Your task to perform on an android device: What is the recent news? Image 0: 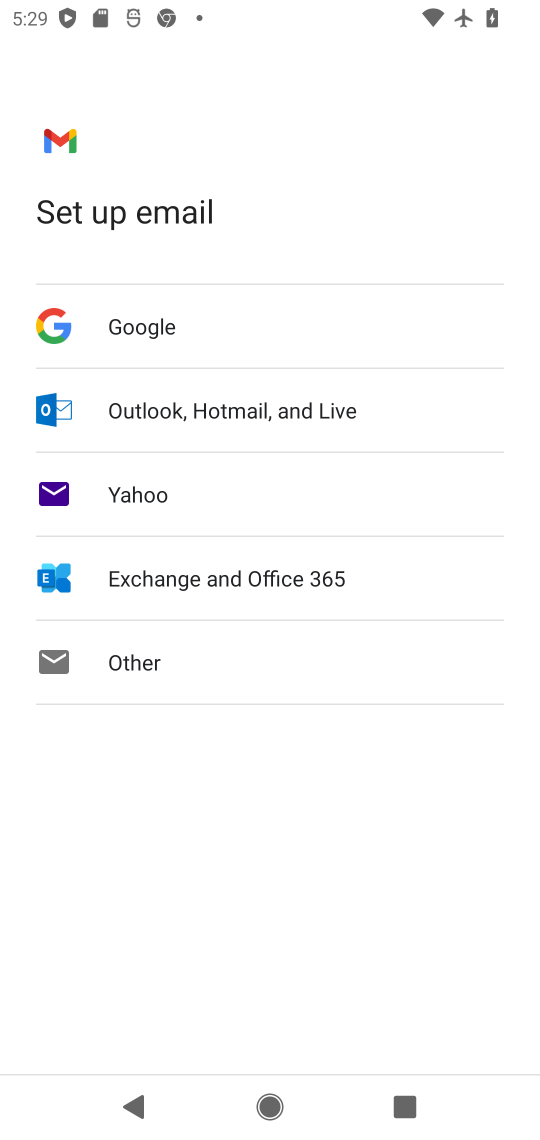
Step 0: press home button
Your task to perform on an android device: What is the recent news? Image 1: 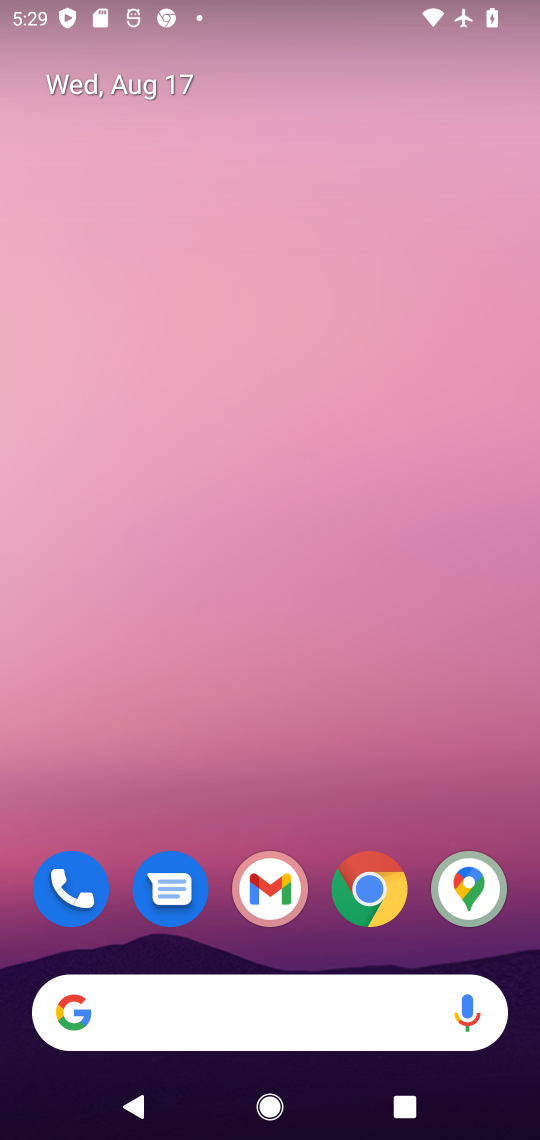
Step 1: click (79, 1014)
Your task to perform on an android device: What is the recent news? Image 2: 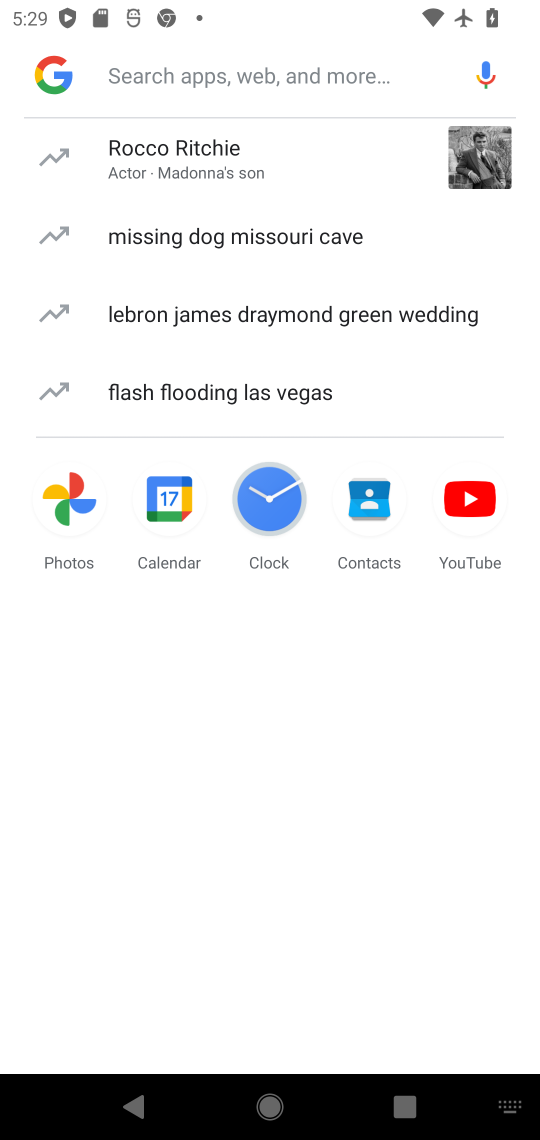
Step 2: click (47, 68)
Your task to perform on an android device: What is the recent news? Image 3: 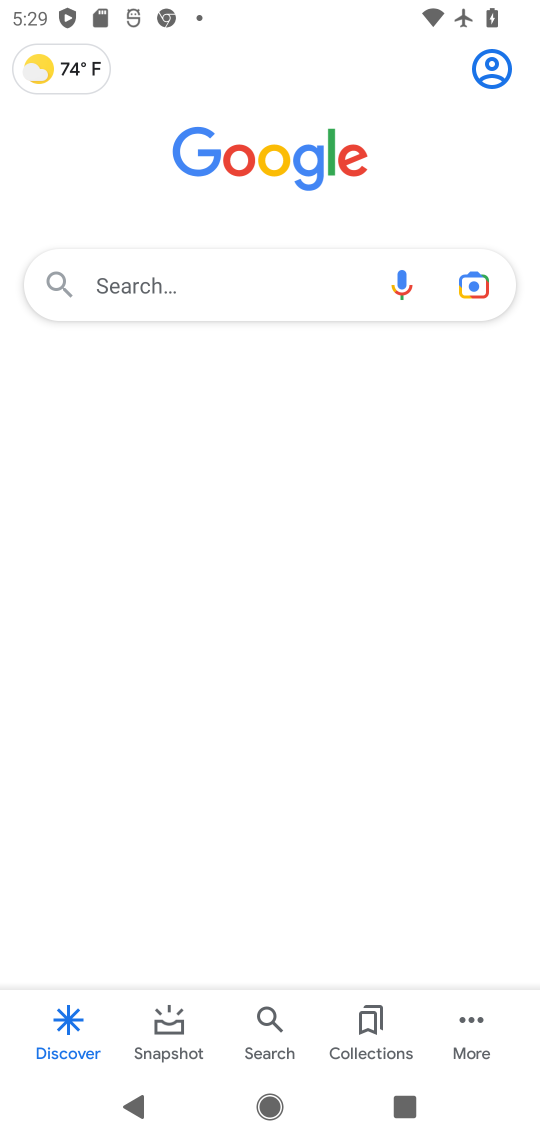
Step 3: click (197, 283)
Your task to perform on an android device: What is the recent news? Image 4: 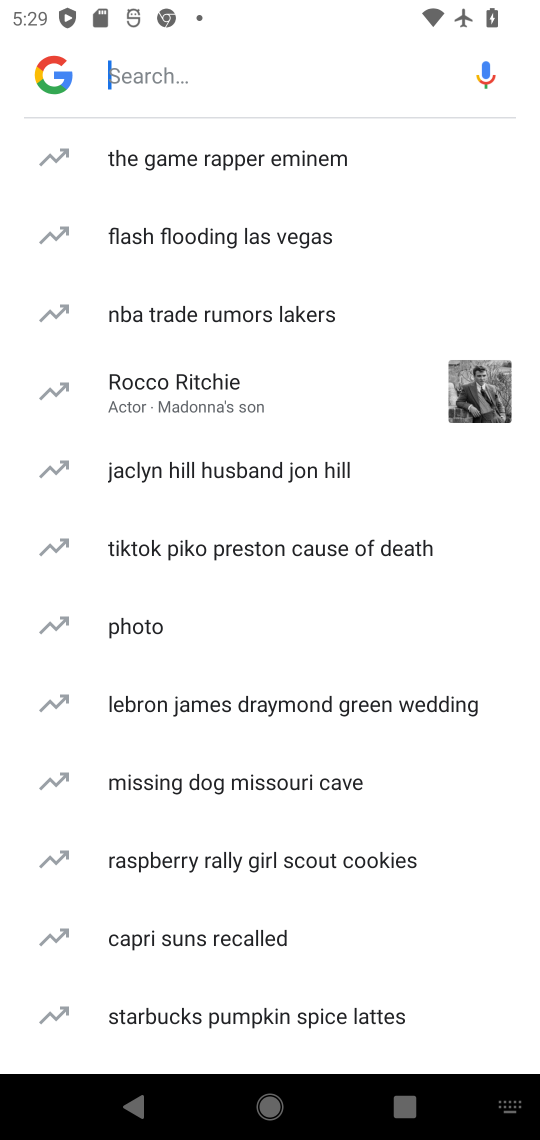
Step 4: type "recent news"
Your task to perform on an android device: What is the recent news? Image 5: 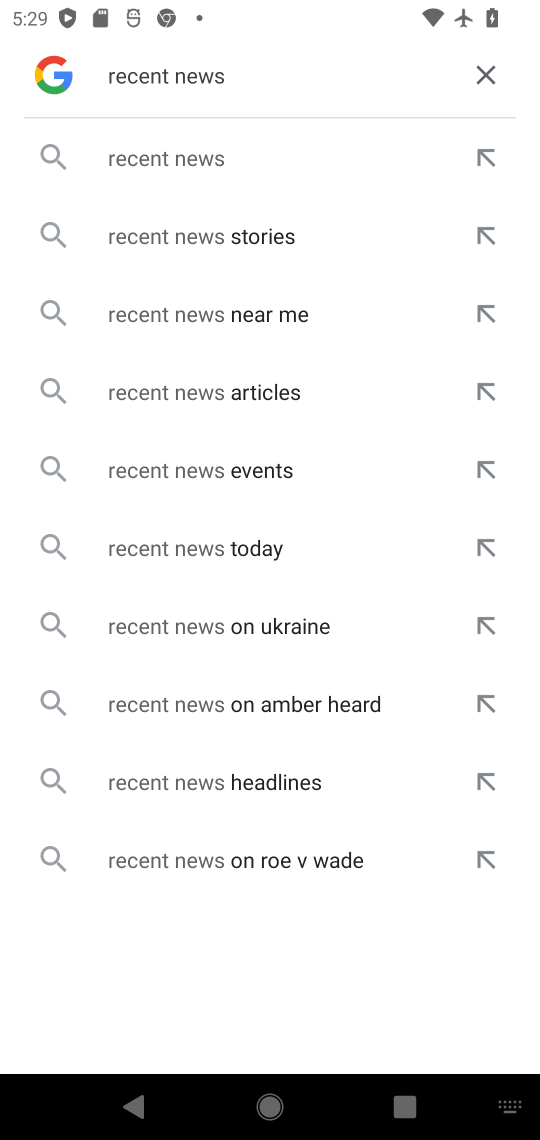
Step 5: click (172, 147)
Your task to perform on an android device: What is the recent news? Image 6: 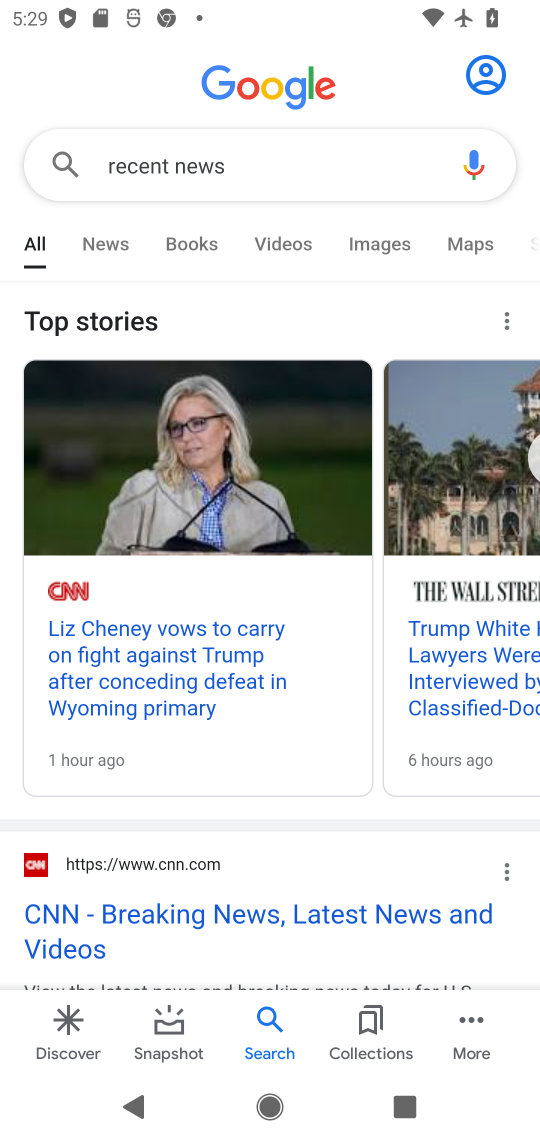
Step 6: task complete